Your task to perform on an android device: open app "Fetch Rewards" Image 0: 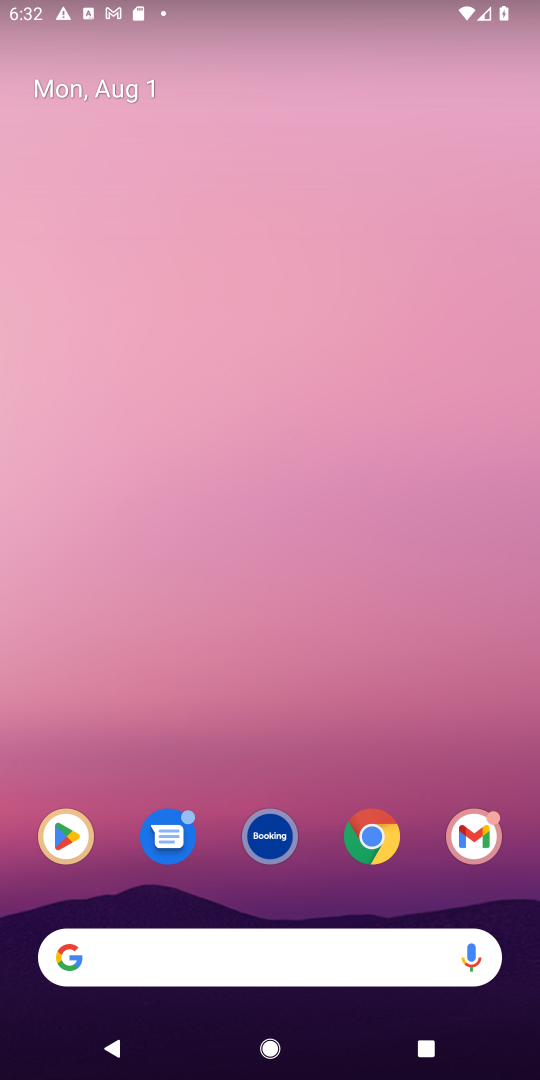
Step 0: press home button
Your task to perform on an android device: open app "Fetch Rewards" Image 1: 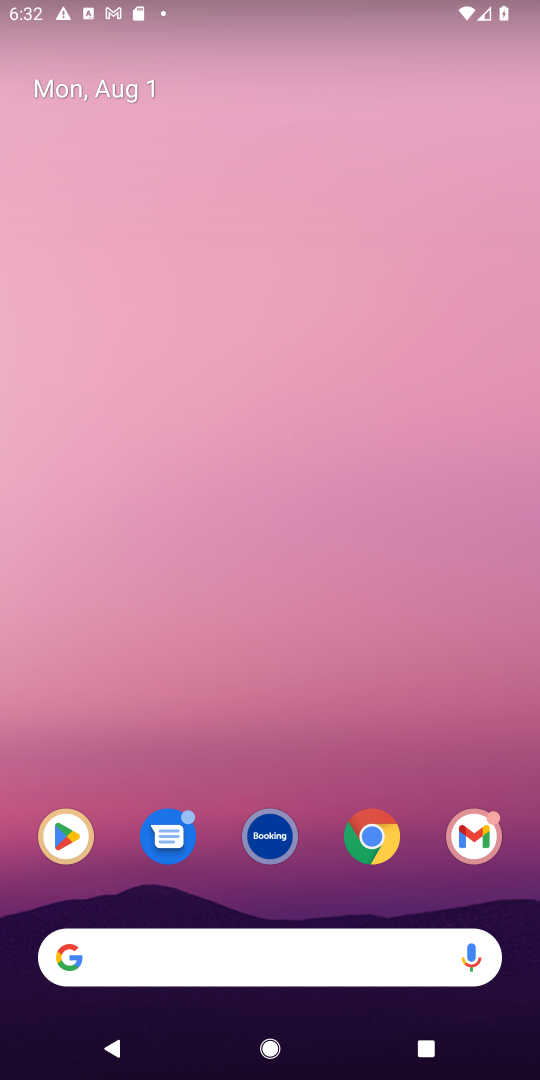
Step 1: click (58, 839)
Your task to perform on an android device: open app "Fetch Rewards" Image 2: 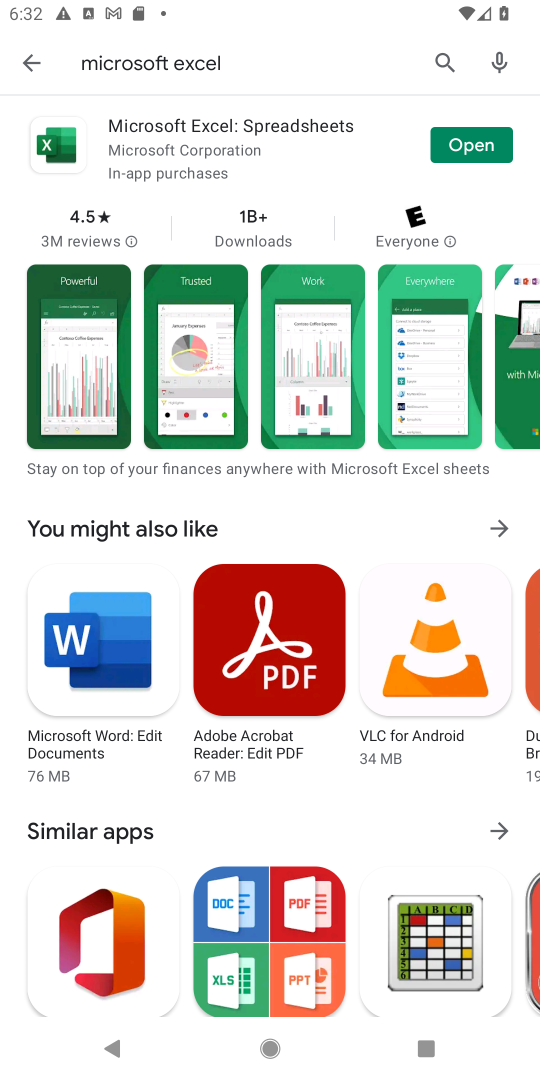
Step 2: click (440, 55)
Your task to perform on an android device: open app "Fetch Rewards" Image 3: 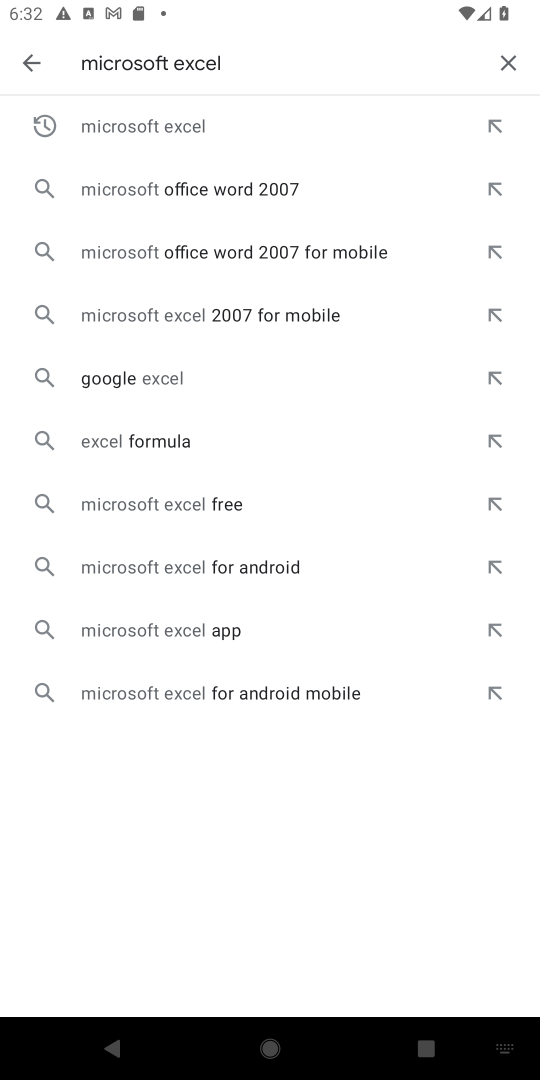
Step 3: click (506, 59)
Your task to perform on an android device: open app "Fetch Rewards" Image 4: 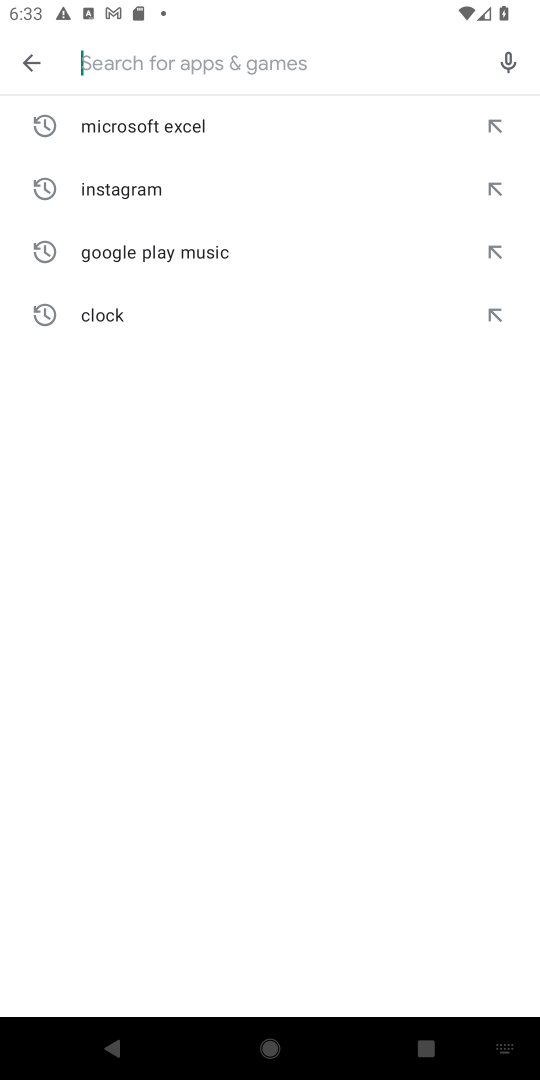
Step 4: type "Fetch Rewards"
Your task to perform on an android device: open app "Fetch Rewards" Image 5: 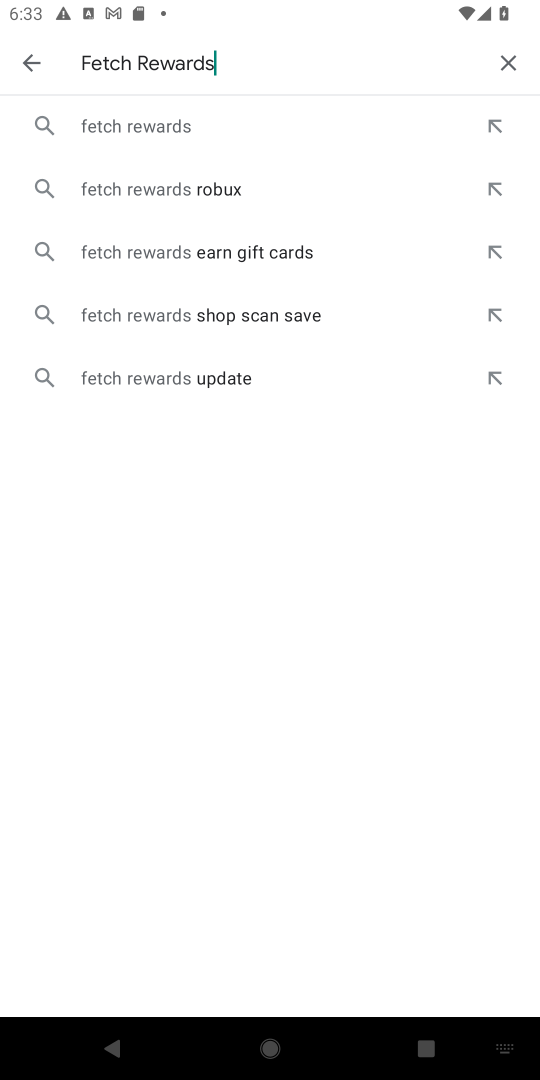
Step 5: click (166, 121)
Your task to perform on an android device: open app "Fetch Rewards" Image 6: 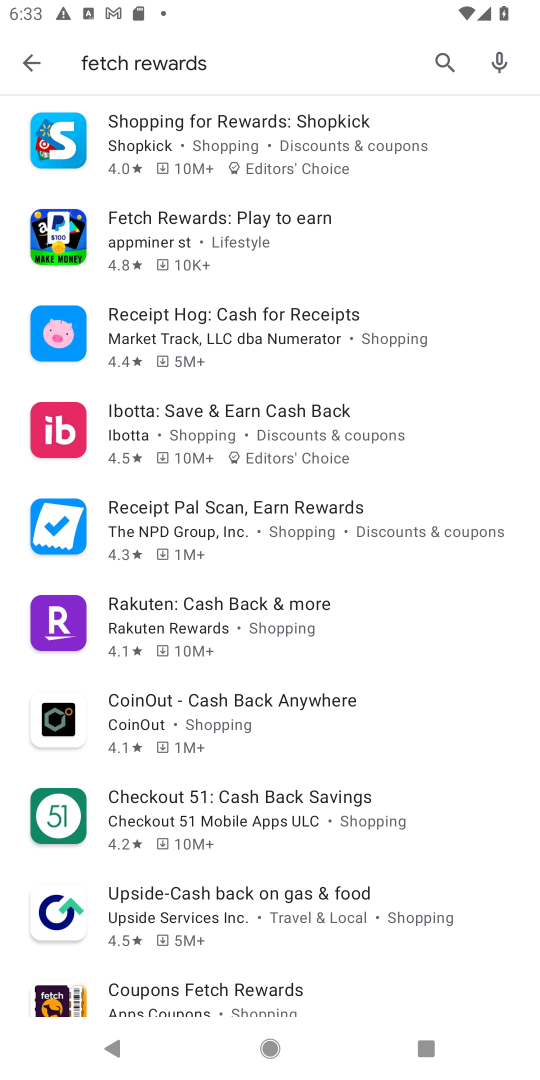
Step 6: click (146, 248)
Your task to perform on an android device: open app "Fetch Rewards" Image 7: 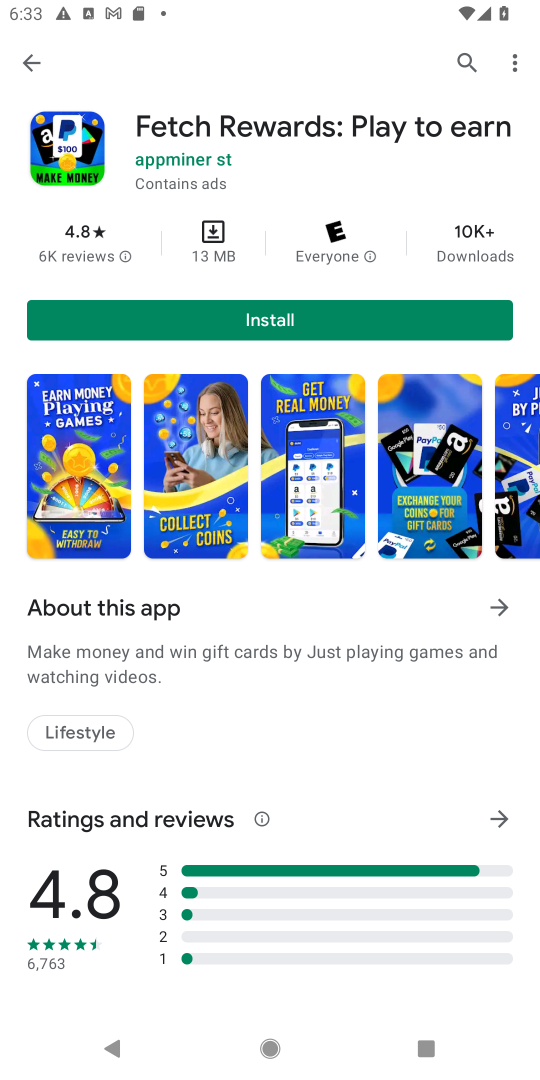
Step 7: task complete